Your task to perform on an android device: turn off picture-in-picture Image 0: 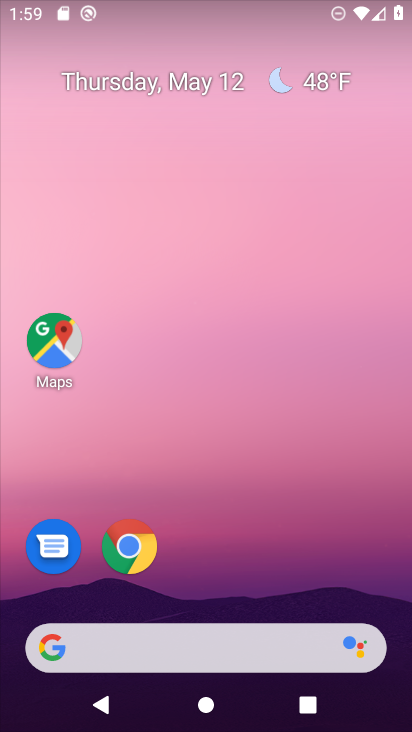
Step 0: drag from (238, 653) to (132, 146)
Your task to perform on an android device: turn off picture-in-picture Image 1: 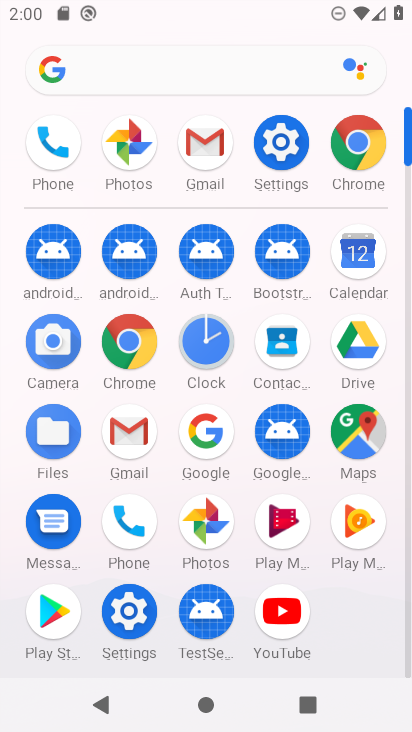
Step 1: click (285, 133)
Your task to perform on an android device: turn off picture-in-picture Image 2: 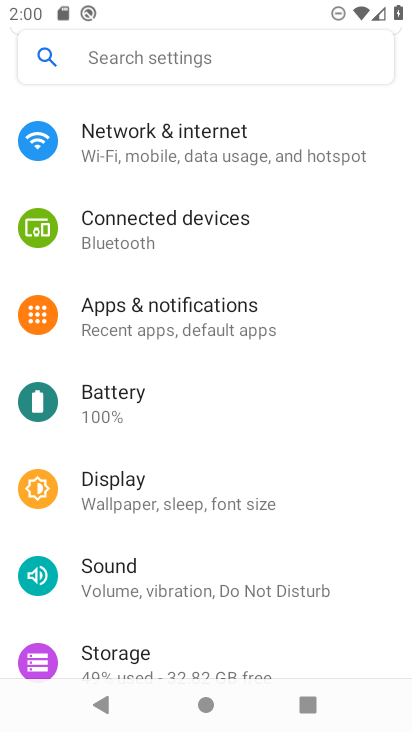
Step 2: click (189, 52)
Your task to perform on an android device: turn off picture-in-picture Image 3: 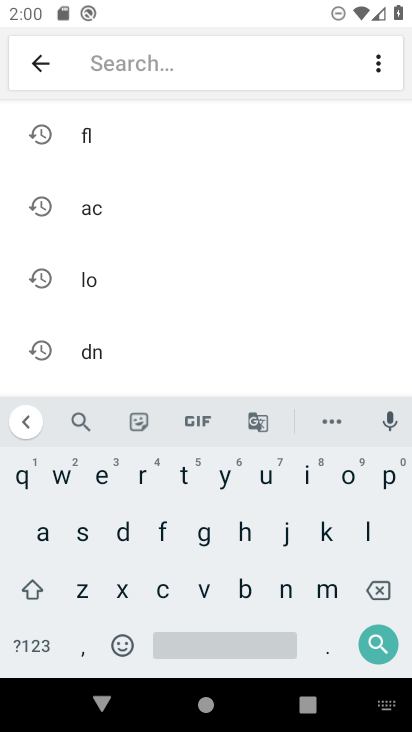
Step 3: click (385, 483)
Your task to perform on an android device: turn off picture-in-picture Image 4: 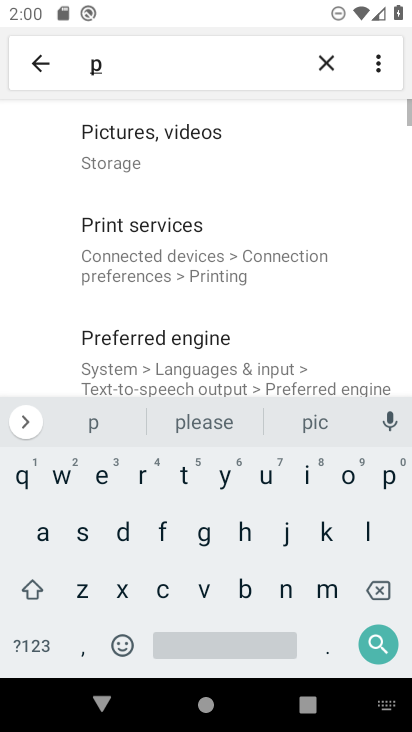
Step 4: click (305, 483)
Your task to perform on an android device: turn off picture-in-picture Image 5: 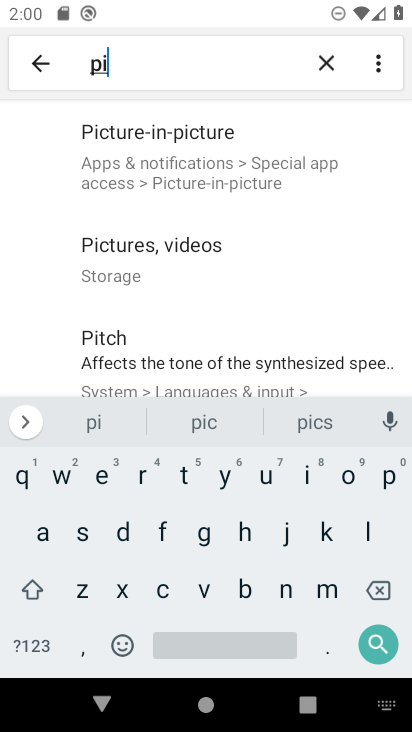
Step 5: click (183, 165)
Your task to perform on an android device: turn off picture-in-picture Image 6: 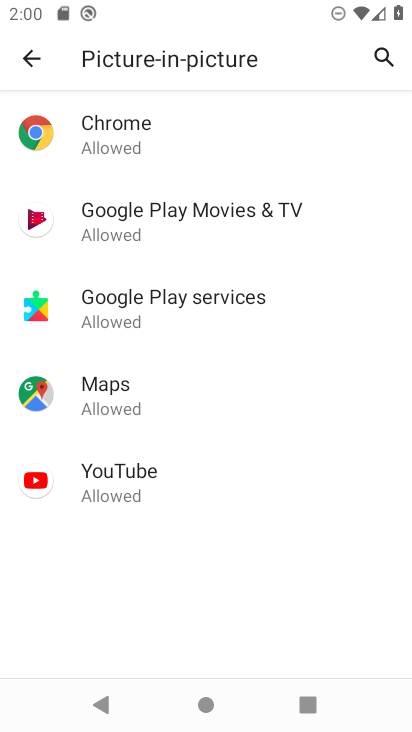
Step 6: task complete